Your task to perform on an android device: Clear the shopping cart on bestbuy. Search for usb-c to usb-b on bestbuy, select the first entry, add it to the cart, then select checkout. Image 0: 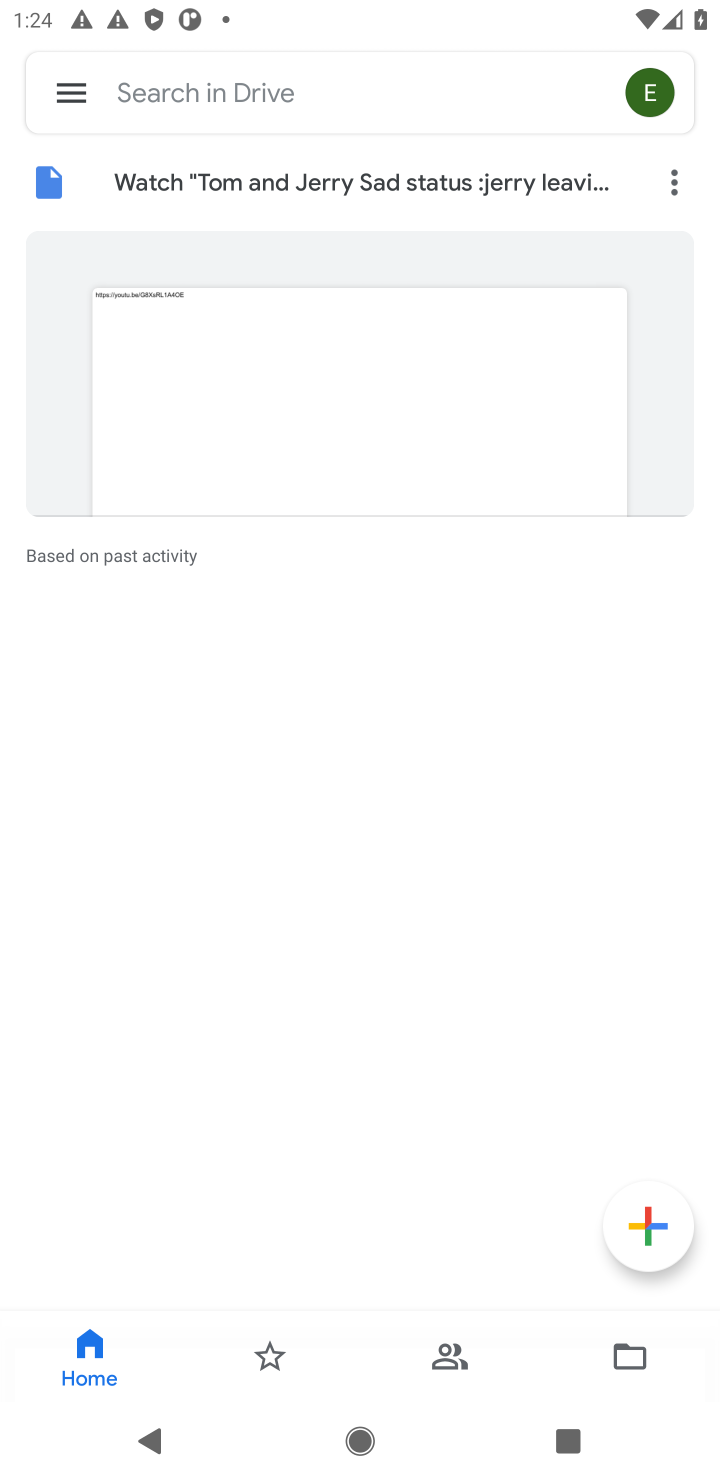
Step 0: press home button
Your task to perform on an android device: Clear the shopping cart on bestbuy. Search for usb-c to usb-b on bestbuy, select the first entry, add it to the cart, then select checkout. Image 1: 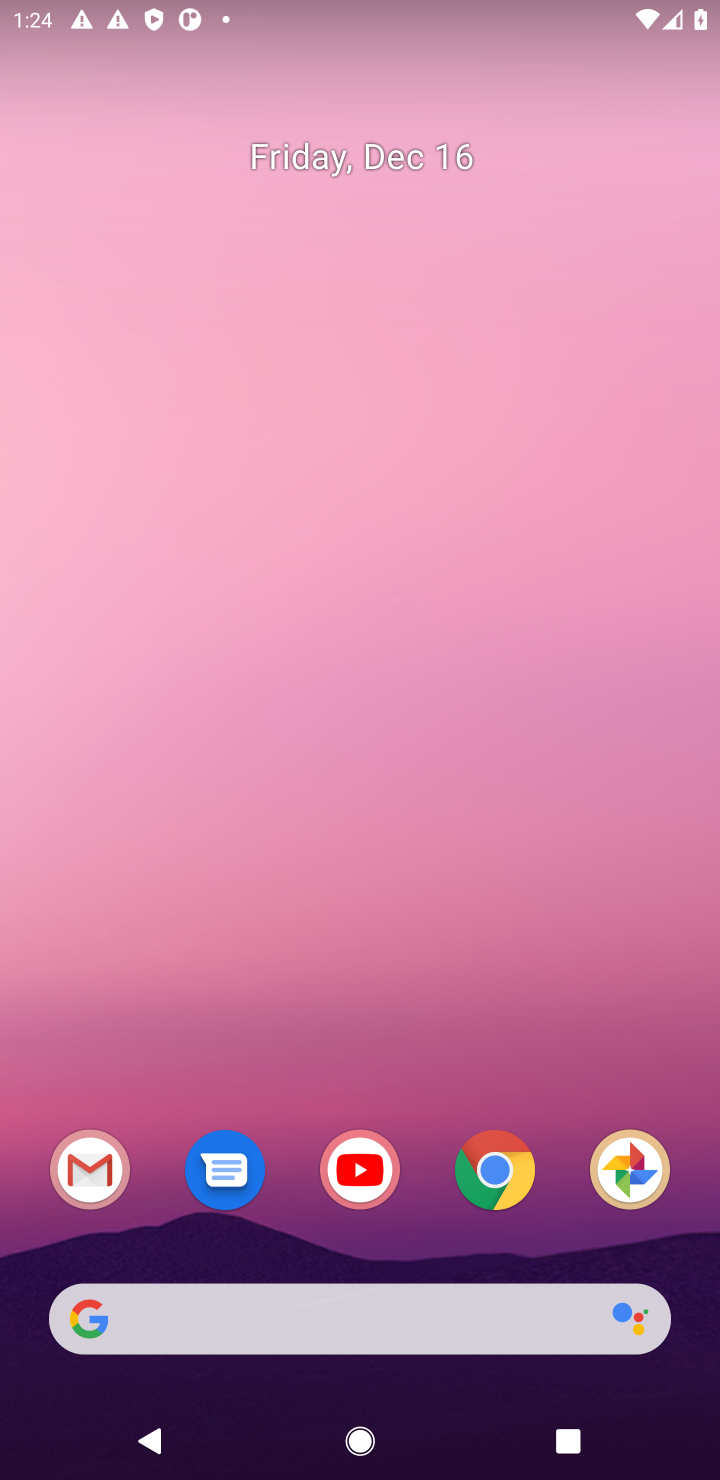
Step 1: click (507, 1174)
Your task to perform on an android device: Clear the shopping cart on bestbuy. Search for usb-c to usb-b on bestbuy, select the first entry, add it to the cart, then select checkout. Image 2: 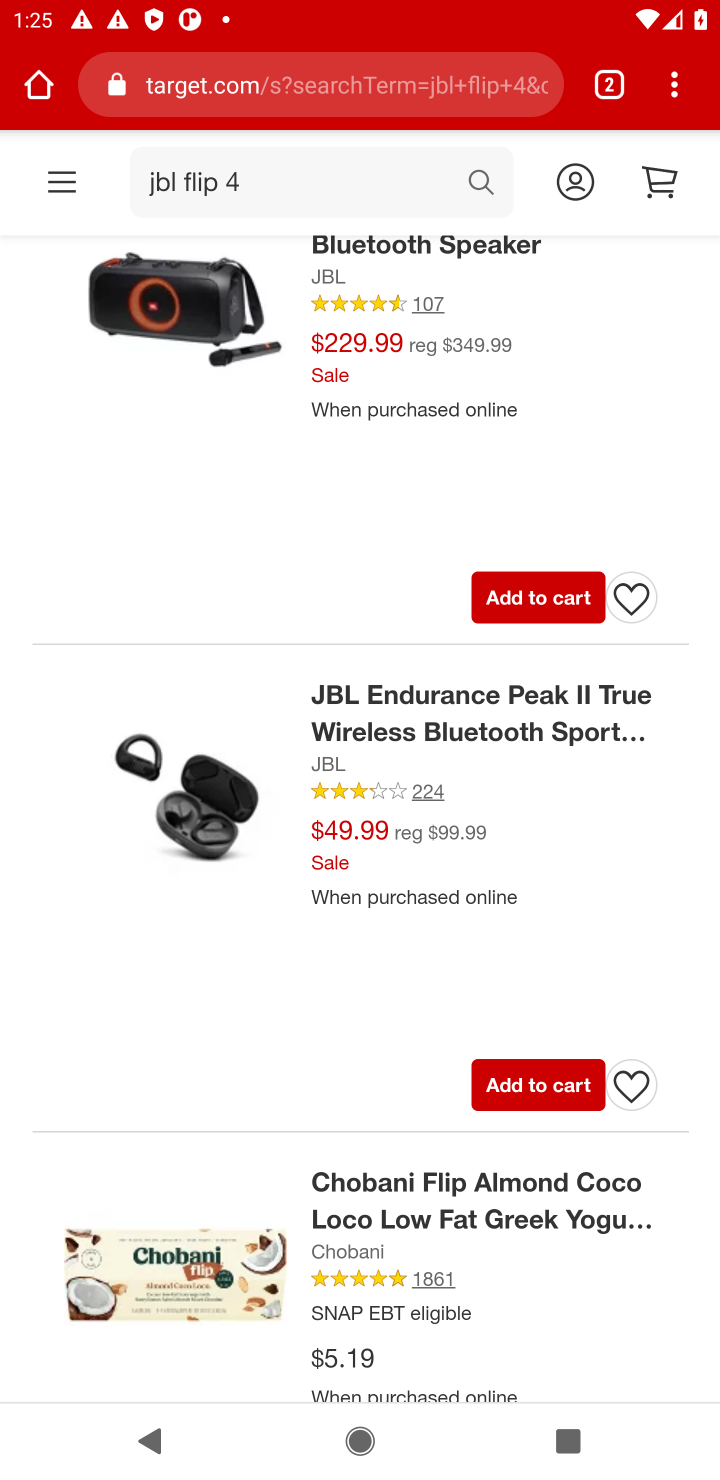
Step 2: click (226, 94)
Your task to perform on an android device: Clear the shopping cart on bestbuy. Search for usb-c to usb-b on bestbuy, select the first entry, add it to the cart, then select checkout. Image 3: 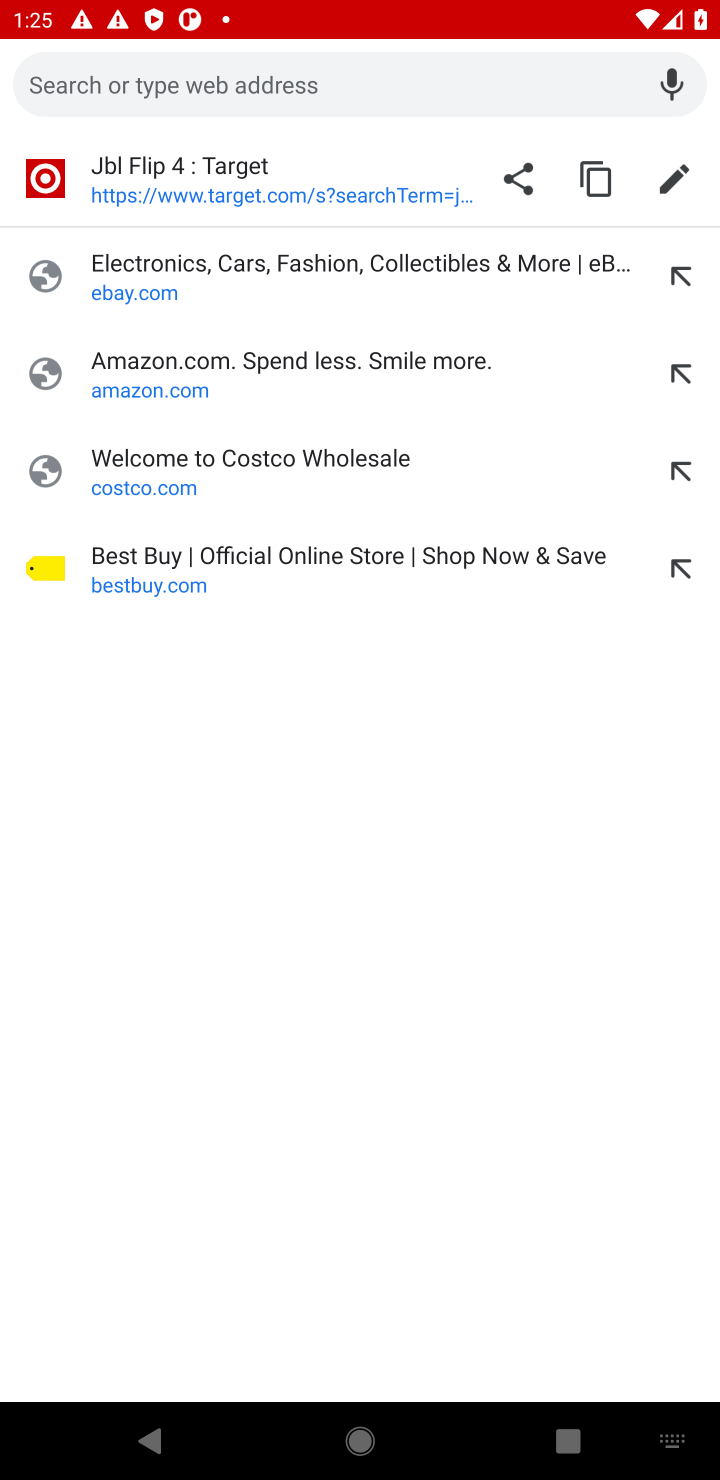
Step 3: click (138, 567)
Your task to perform on an android device: Clear the shopping cart on bestbuy. Search for usb-c to usb-b on bestbuy, select the first entry, add it to the cart, then select checkout. Image 4: 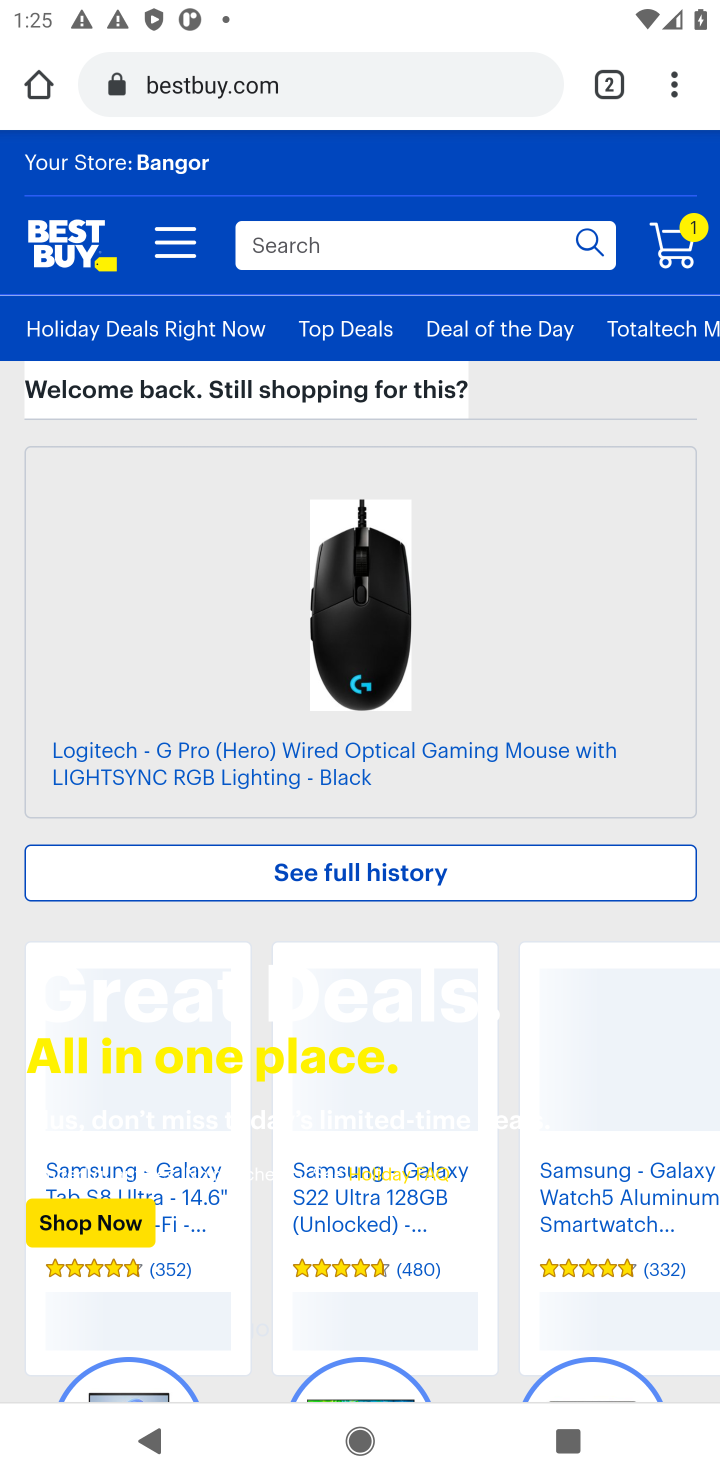
Step 4: click (680, 255)
Your task to perform on an android device: Clear the shopping cart on bestbuy. Search for usb-c to usb-b on bestbuy, select the first entry, add it to the cart, then select checkout. Image 5: 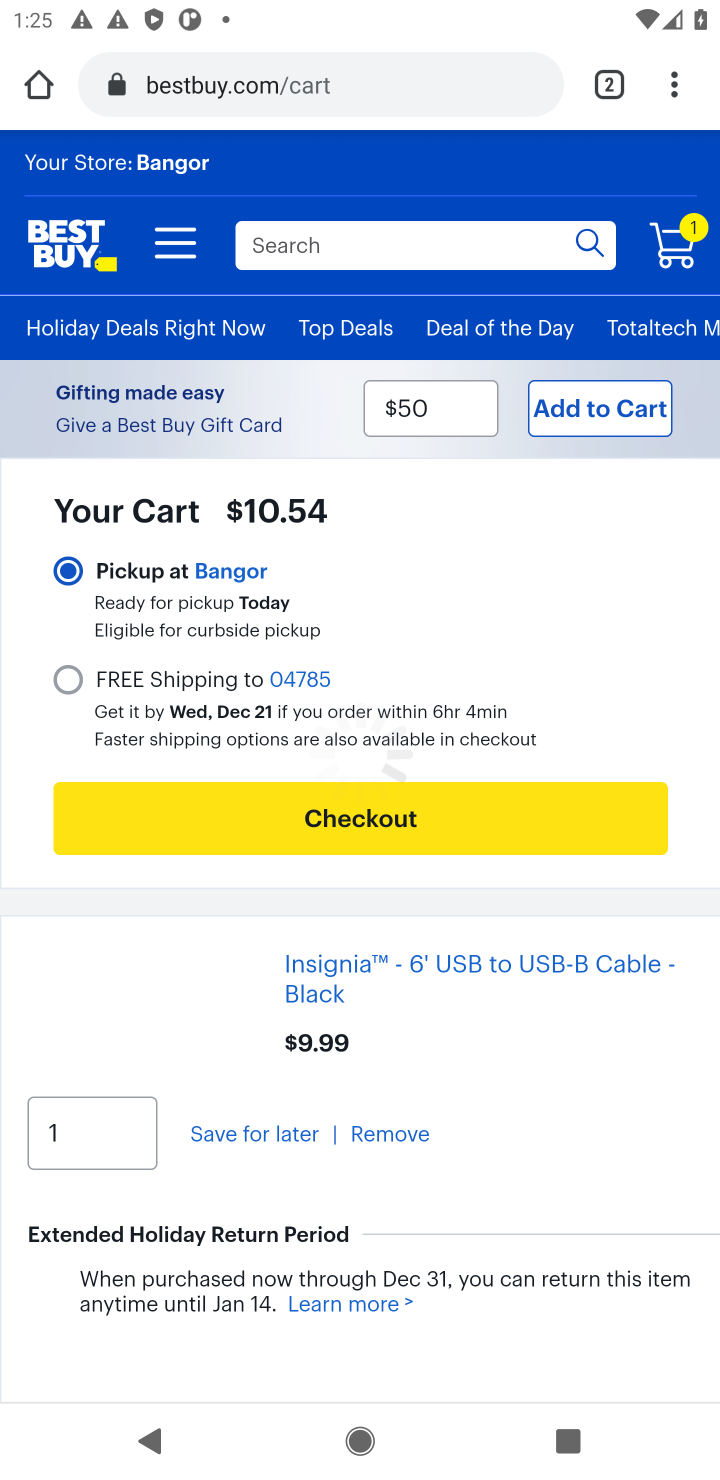
Step 5: click (401, 1126)
Your task to perform on an android device: Clear the shopping cart on bestbuy. Search for usb-c to usb-b on bestbuy, select the first entry, add it to the cart, then select checkout. Image 6: 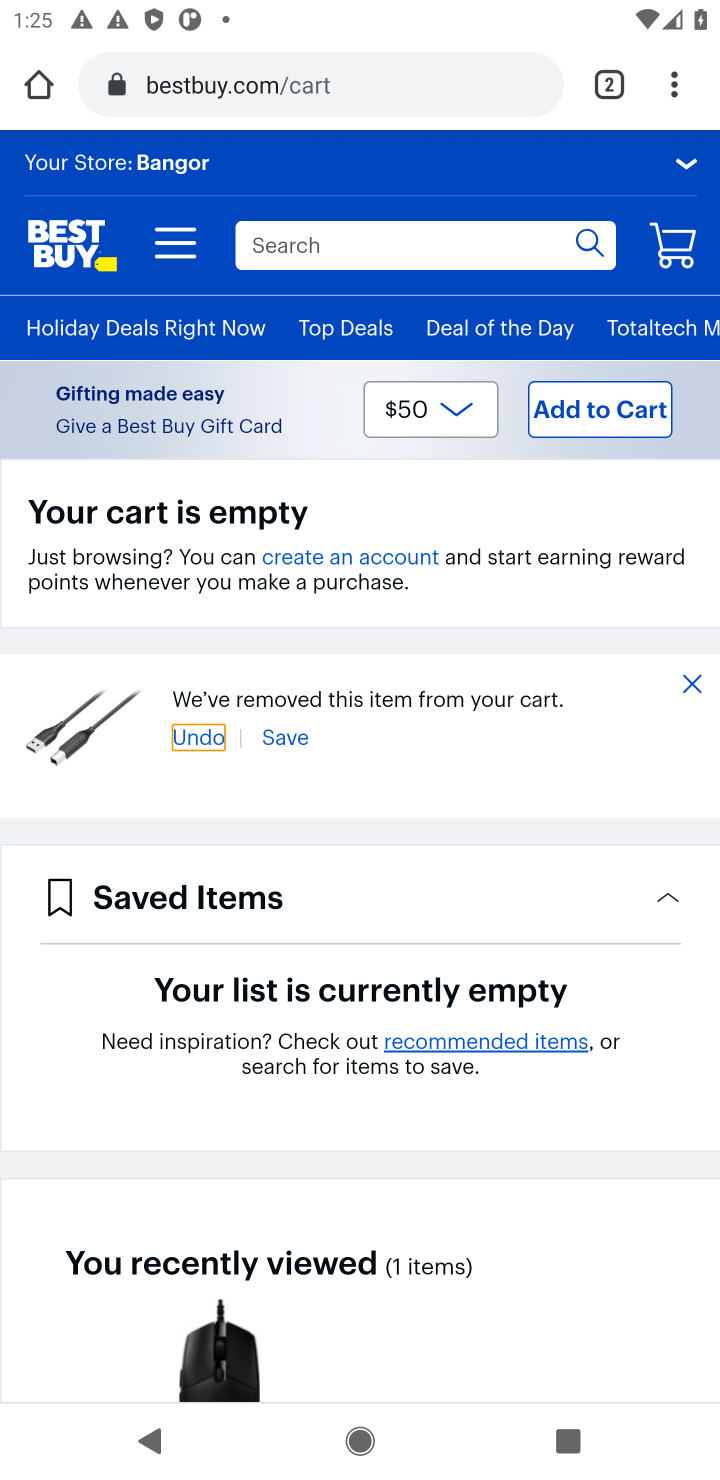
Step 6: click (273, 248)
Your task to perform on an android device: Clear the shopping cart on bestbuy. Search for usb-c to usb-b on bestbuy, select the first entry, add it to the cart, then select checkout. Image 7: 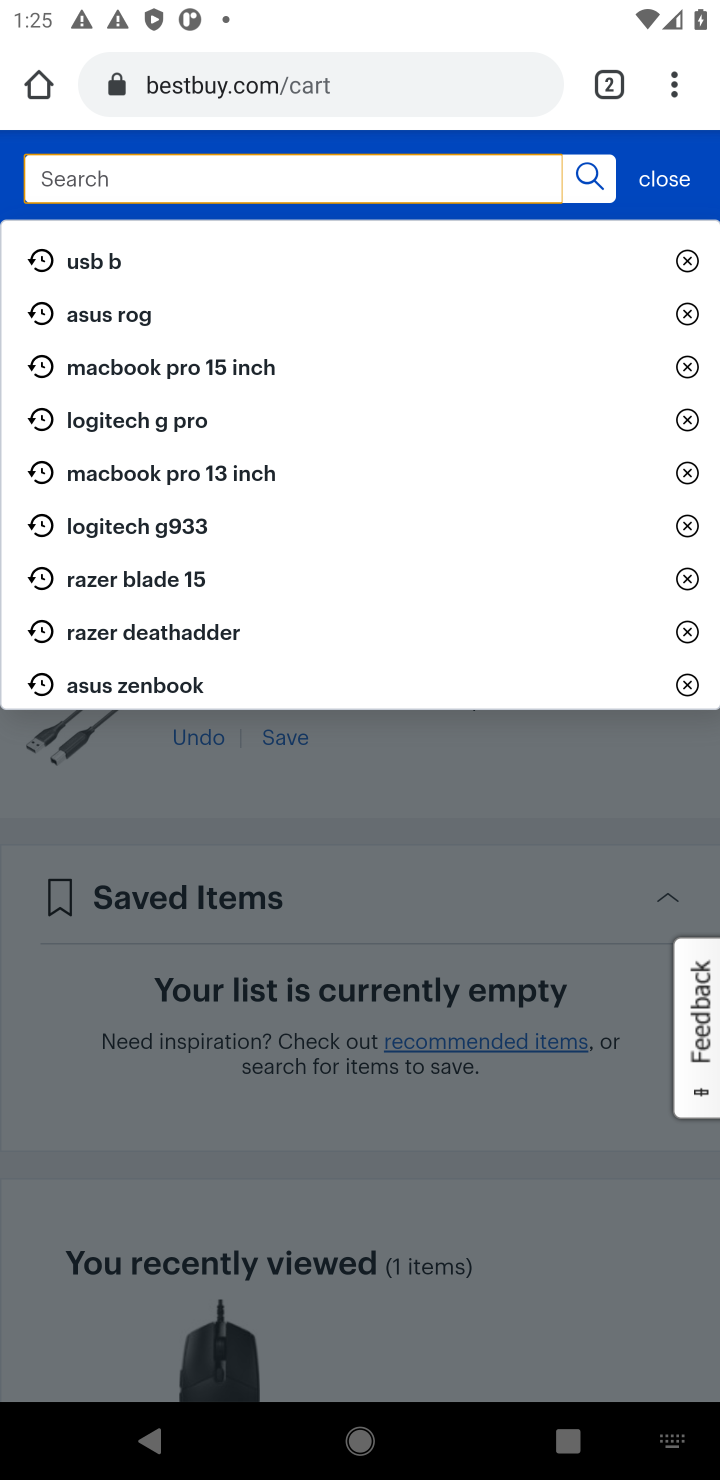
Step 7: type "usb-c to usb-b "
Your task to perform on an android device: Clear the shopping cart on bestbuy. Search for usb-c to usb-b on bestbuy, select the first entry, add it to the cart, then select checkout. Image 8: 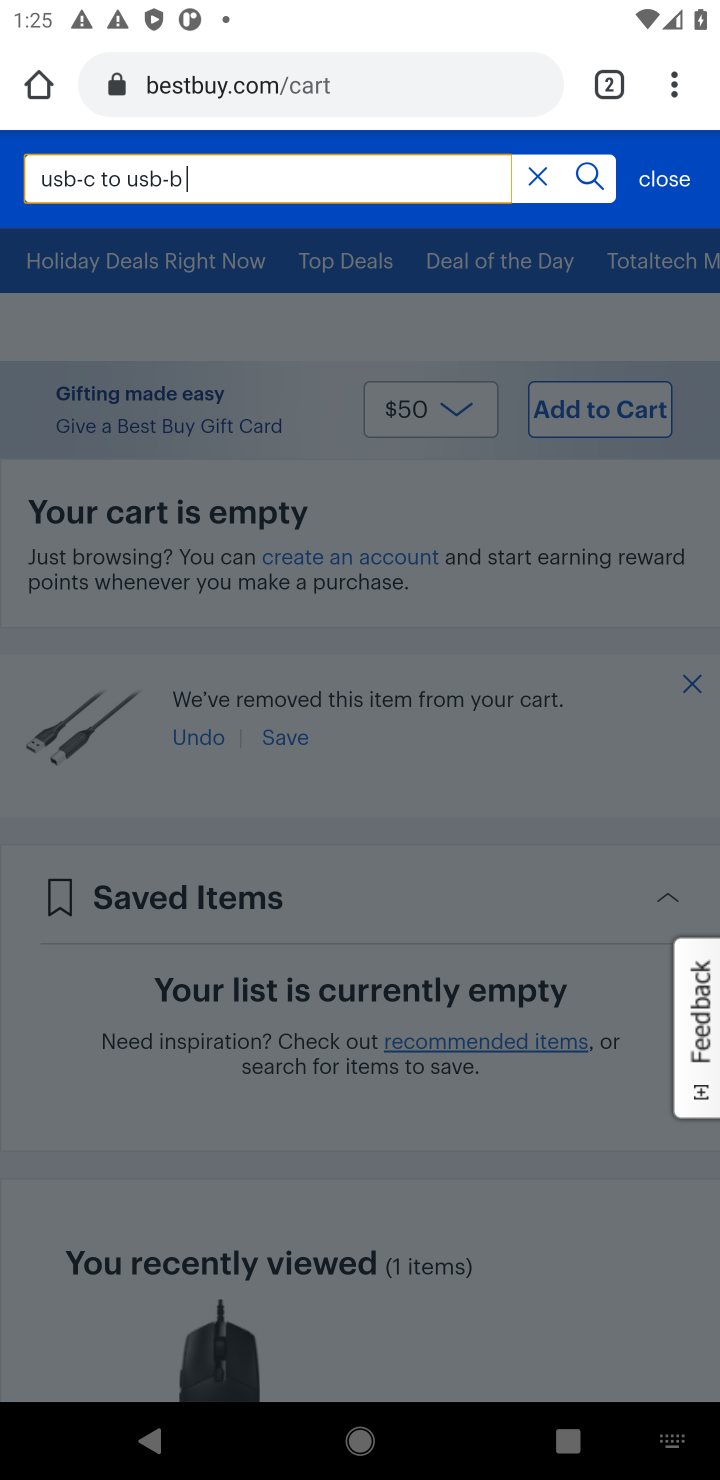
Step 8: click (588, 180)
Your task to perform on an android device: Clear the shopping cart on bestbuy. Search for usb-c to usb-b on bestbuy, select the first entry, add it to the cart, then select checkout. Image 9: 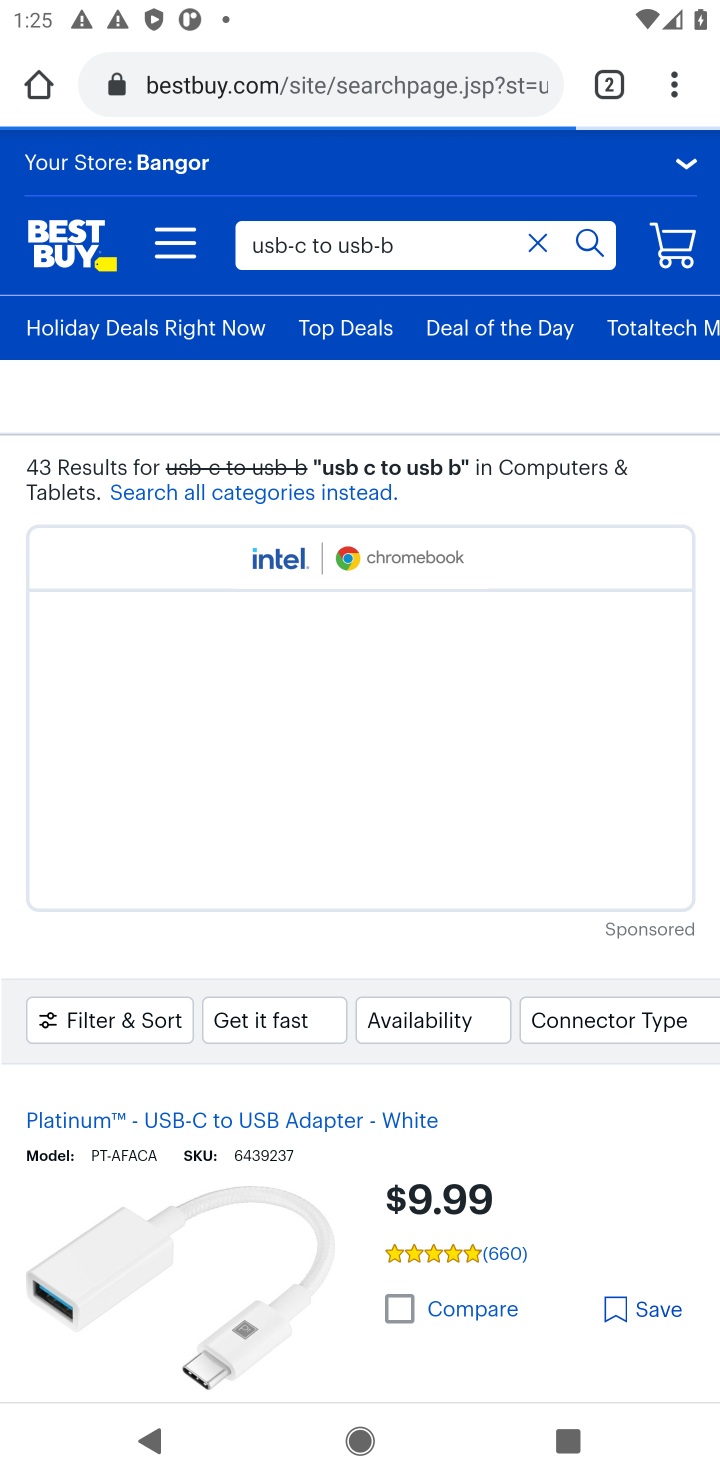
Step 9: task complete